Your task to perform on an android device: check battery use Image 0: 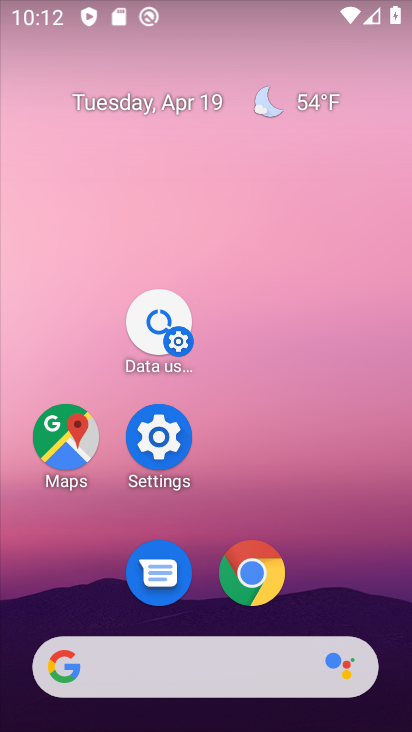
Step 0: click (159, 448)
Your task to perform on an android device: check battery use Image 1: 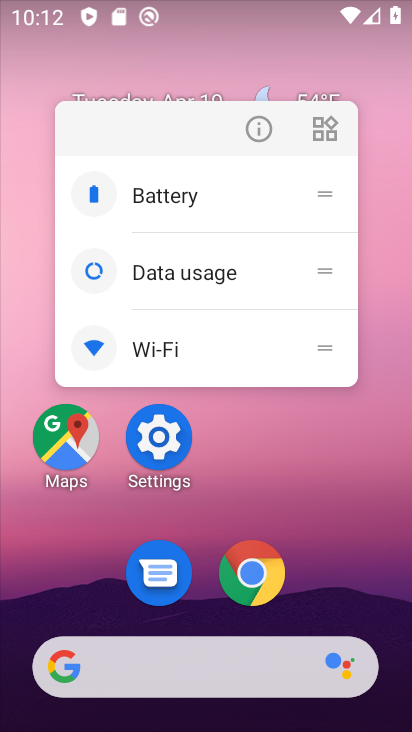
Step 1: click (175, 204)
Your task to perform on an android device: check battery use Image 2: 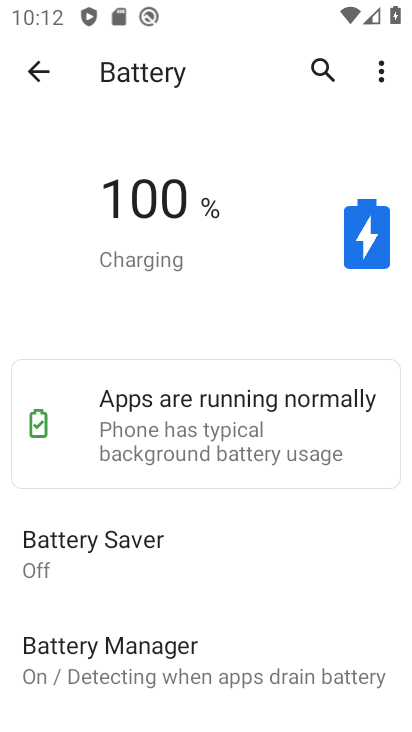
Step 2: click (379, 75)
Your task to perform on an android device: check battery use Image 3: 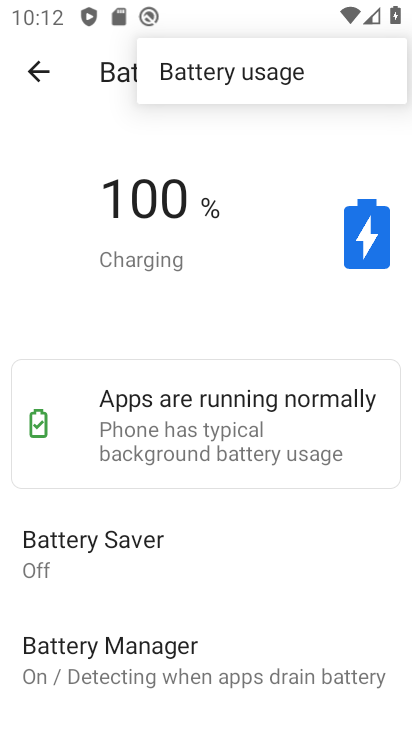
Step 3: click (229, 75)
Your task to perform on an android device: check battery use Image 4: 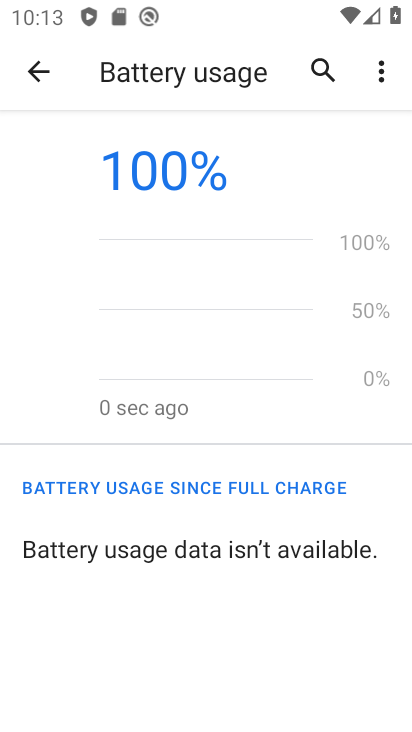
Step 4: task complete